Your task to perform on an android device: Open Google Chrome and open the bookmarks view Image 0: 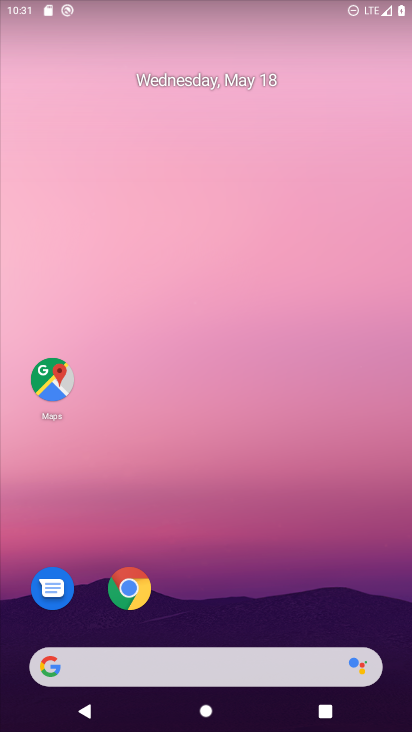
Step 0: click (135, 588)
Your task to perform on an android device: Open Google Chrome and open the bookmarks view Image 1: 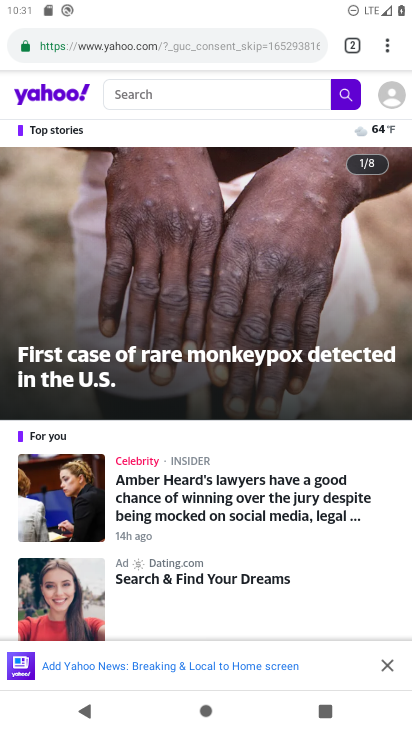
Step 1: click (386, 49)
Your task to perform on an android device: Open Google Chrome and open the bookmarks view Image 2: 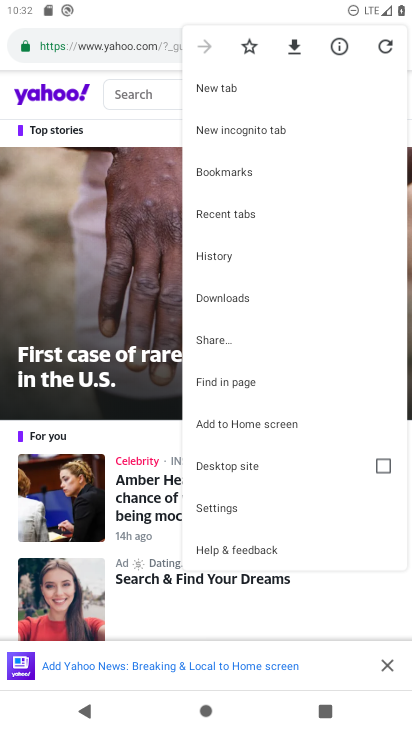
Step 2: click (247, 176)
Your task to perform on an android device: Open Google Chrome and open the bookmarks view Image 3: 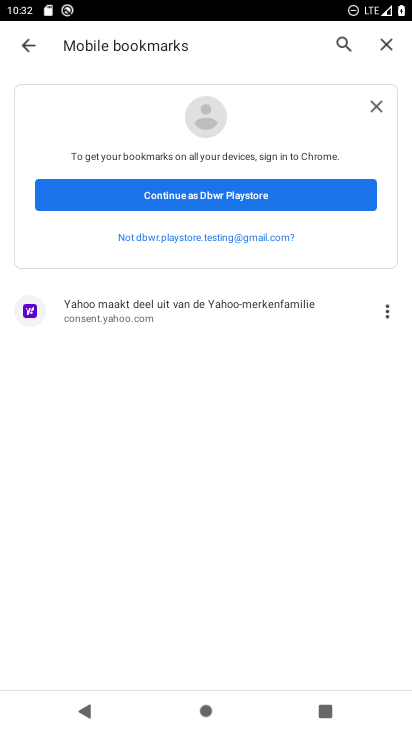
Step 3: click (239, 193)
Your task to perform on an android device: Open Google Chrome and open the bookmarks view Image 4: 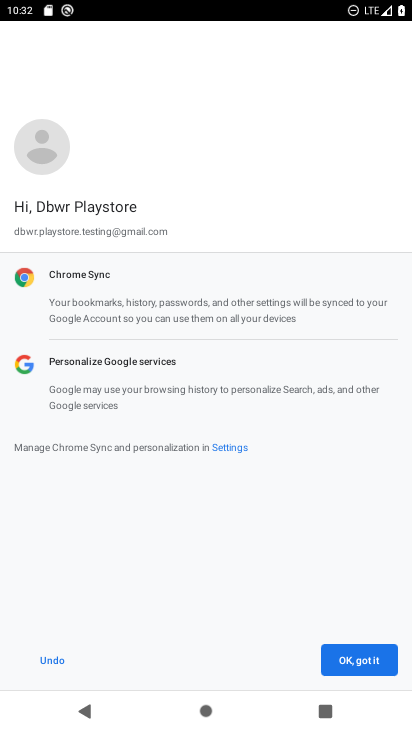
Step 4: click (361, 660)
Your task to perform on an android device: Open Google Chrome and open the bookmarks view Image 5: 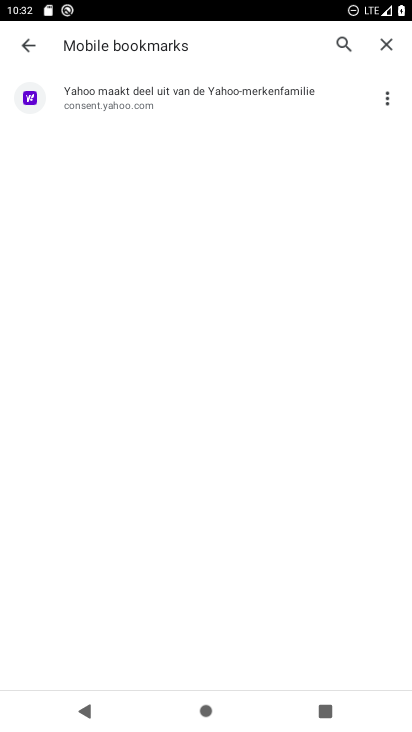
Step 5: task complete